Your task to perform on an android device: Show me productivity apps on the Play Store Image 0: 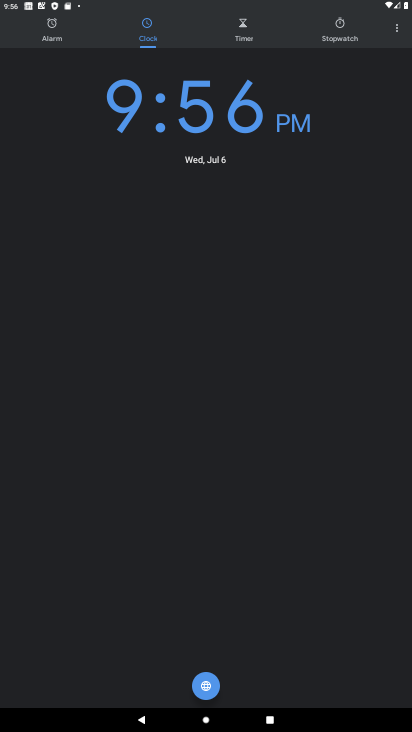
Step 0: press home button
Your task to perform on an android device: Show me productivity apps on the Play Store Image 1: 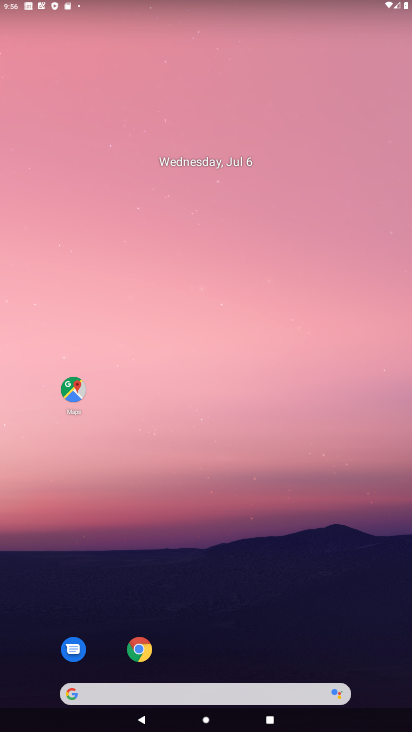
Step 1: drag from (186, 698) to (225, 185)
Your task to perform on an android device: Show me productivity apps on the Play Store Image 2: 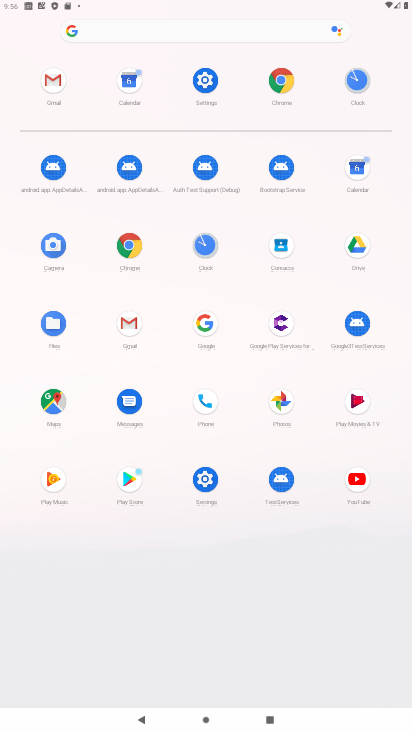
Step 2: click (124, 487)
Your task to perform on an android device: Show me productivity apps on the Play Store Image 3: 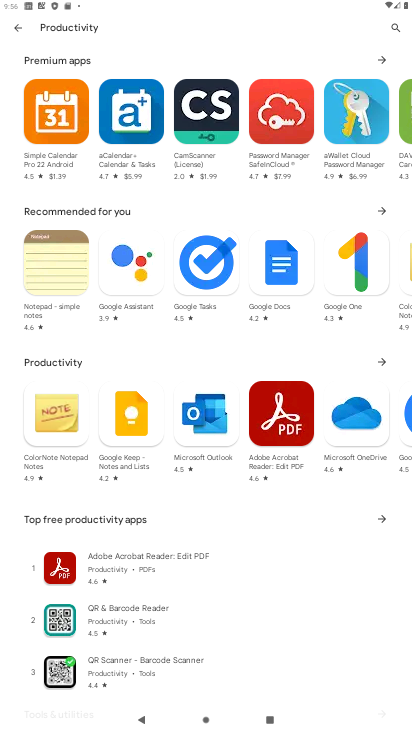
Step 3: task complete